Your task to perform on an android device: Go to notification settings Image 0: 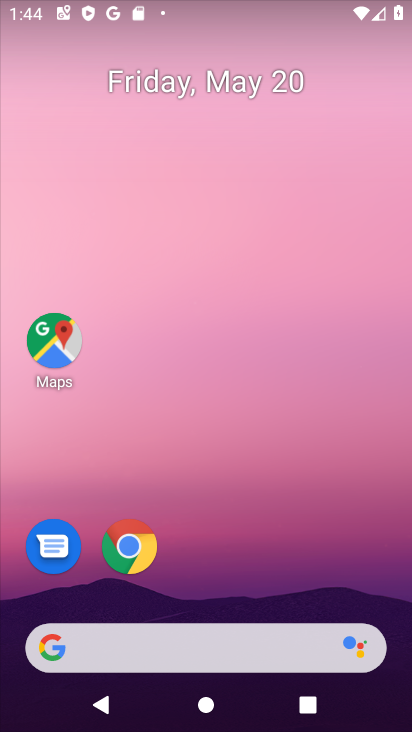
Step 0: drag from (285, 597) to (277, 61)
Your task to perform on an android device: Go to notification settings Image 1: 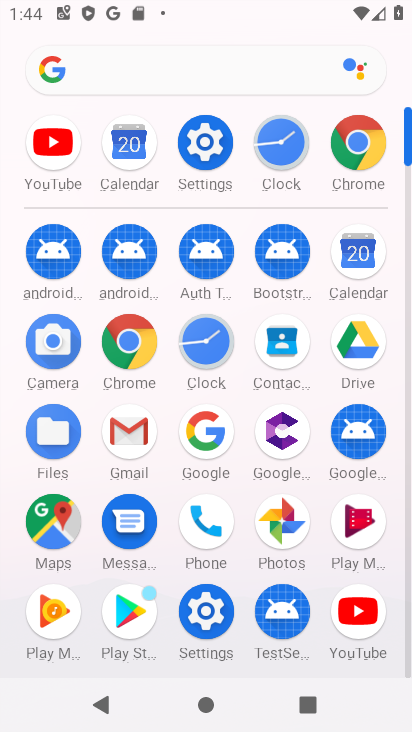
Step 1: click (210, 190)
Your task to perform on an android device: Go to notification settings Image 2: 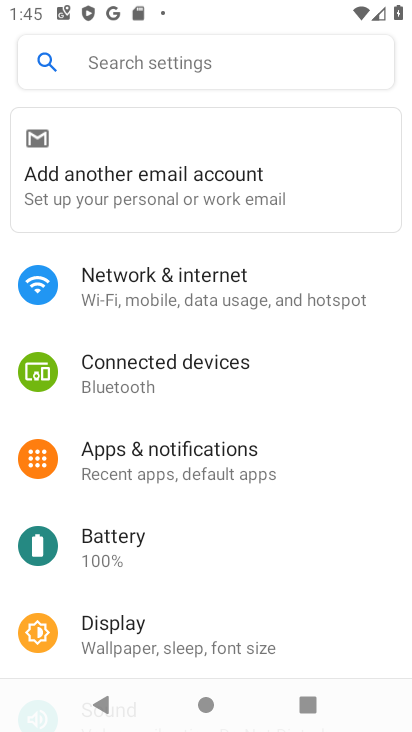
Step 2: click (174, 456)
Your task to perform on an android device: Go to notification settings Image 3: 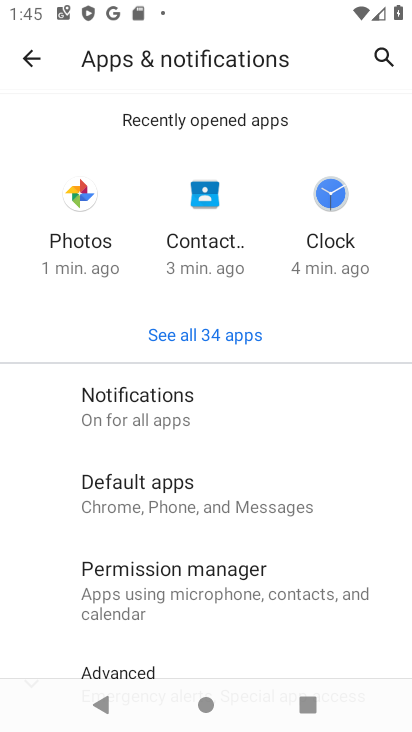
Step 3: task complete